Your task to perform on an android device: Open CNN.com Image 0: 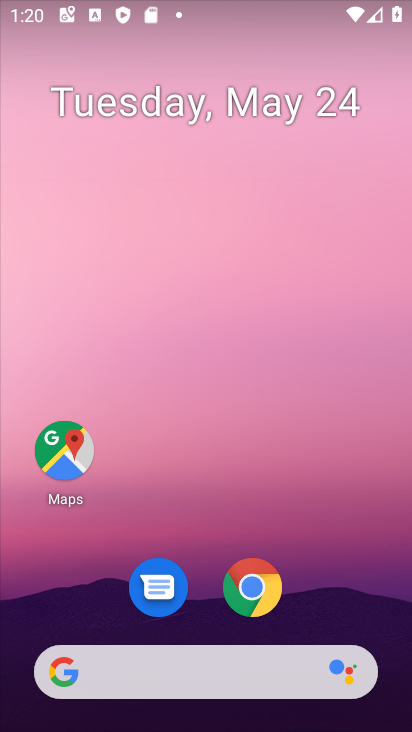
Step 0: click (119, 682)
Your task to perform on an android device: Open CNN.com Image 1: 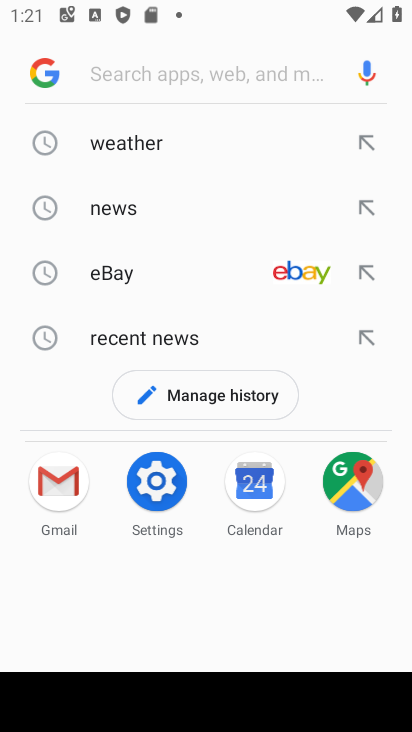
Step 1: type "cnn.com"
Your task to perform on an android device: Open CNN.com Image 2: 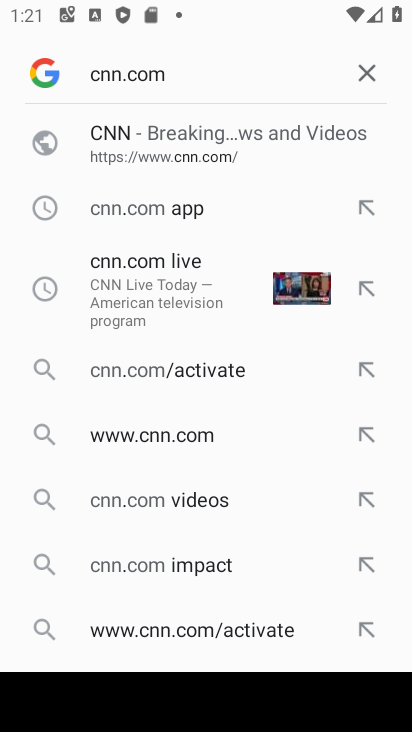
Step 2: click (154, 144)
Your task to perform on an android device: Open CNN.com Image 3: 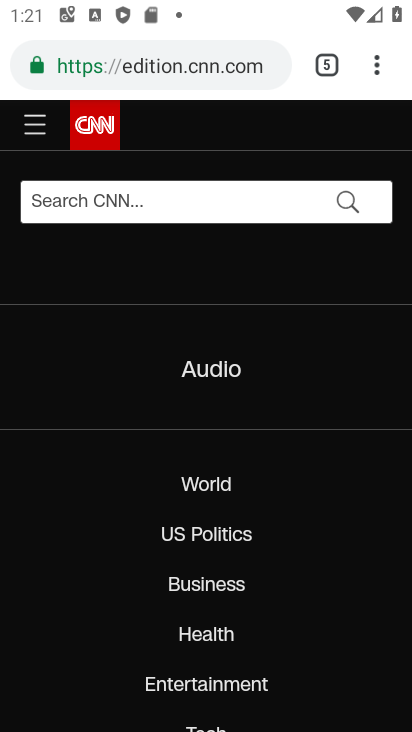
Step 3: task complete